Your task to perform on an android device: Search for sushi restaurants on Maps Image 0: 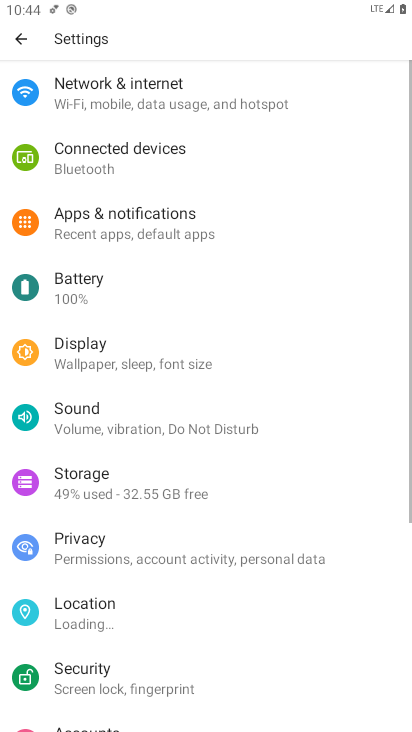
Step 0: press home button
Your task to perform on an android device: Search for sushi restaurants on Maps Image 1: 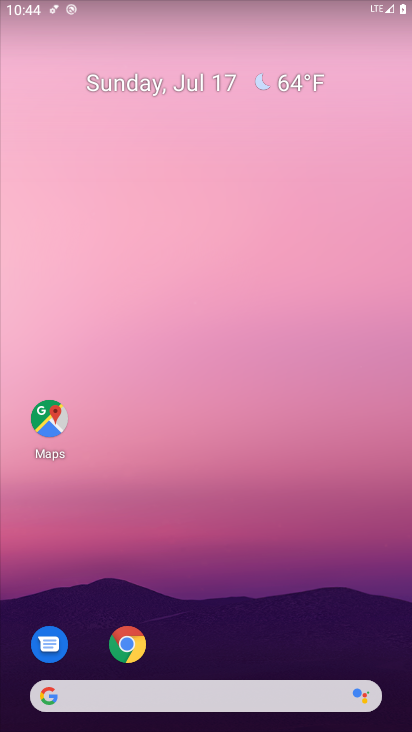
Step 1: click (49, 413)
Your task to perform on an android device: Search for sushi restaurants on Maps Image 2: 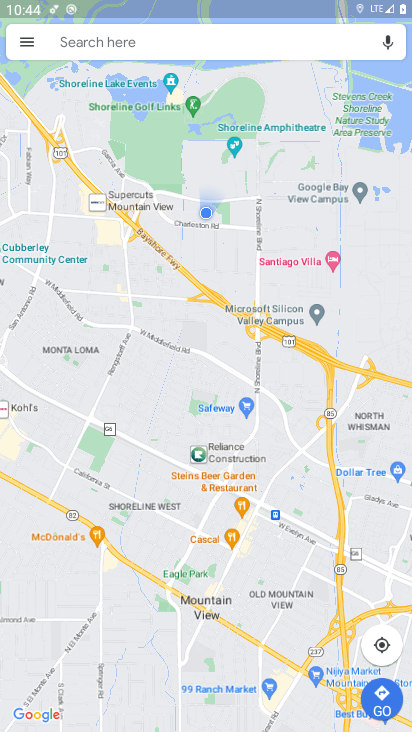
Step 2: type "sushi restaurants"
Your task to perform on an android device: Search for sushi restaurants on Maps Image 3: 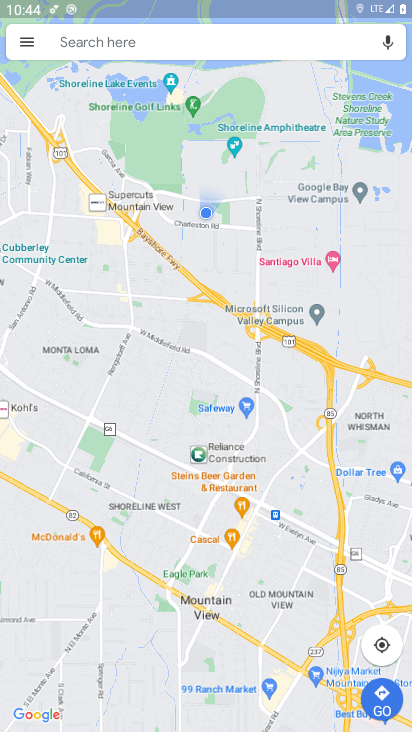
Step 3: click (178, 44)
Your task to perform on an android device: Search for sushi restaurants on Maps Image 4: 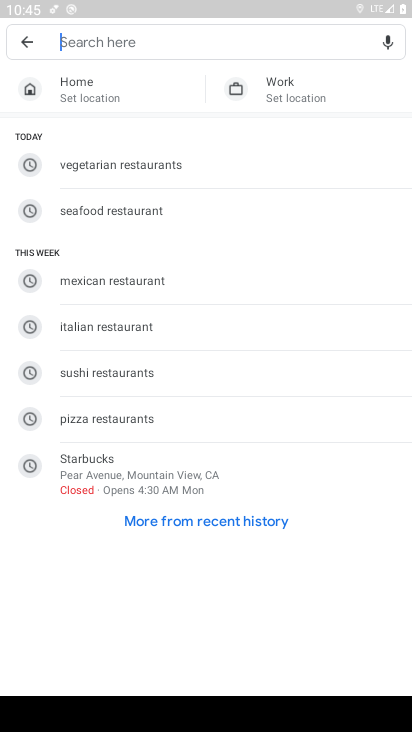
Step 4: click (105, 377)
Your task to perform on an android device: Search for sushi restaurants on Maps Image 5: 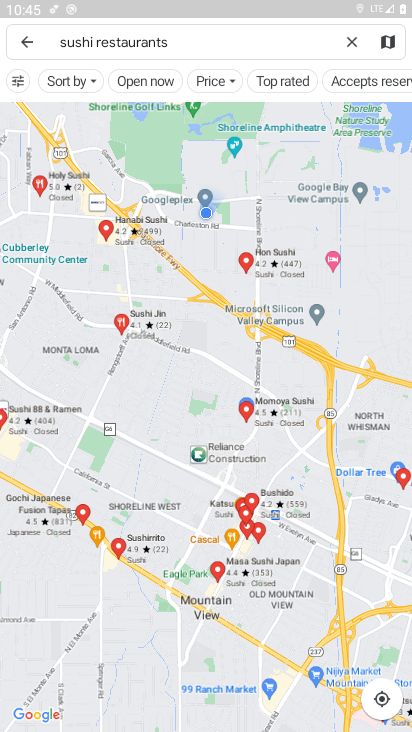
Step 5: task complete